Your task to perform on an android device: What's the weather going to be this weekend? Image 0: 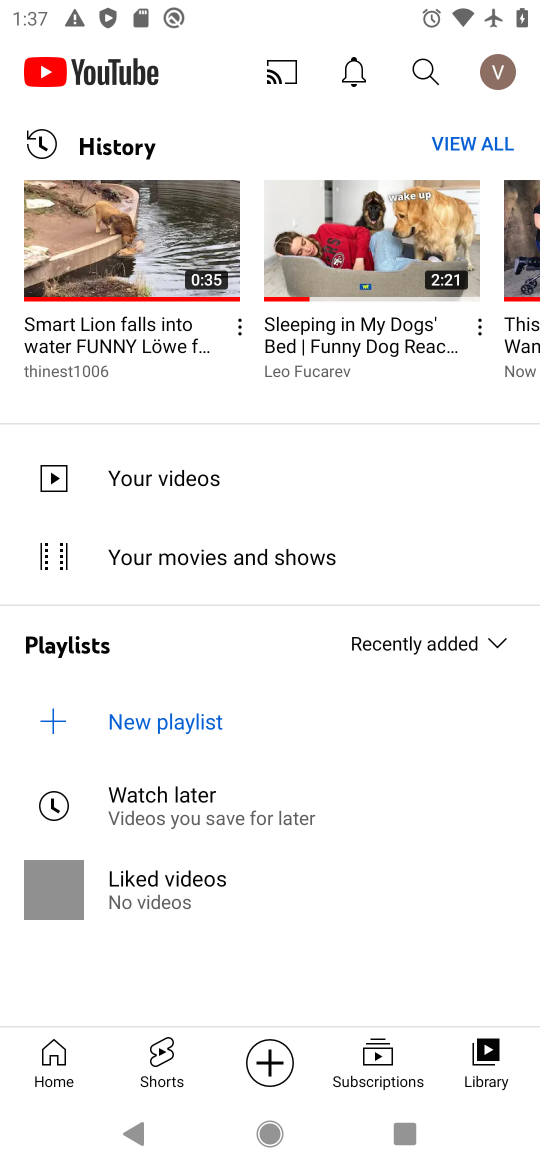
Step 0: press home button
Your task to perform on an android device: What's the weather going to be this weekend? Image 1: 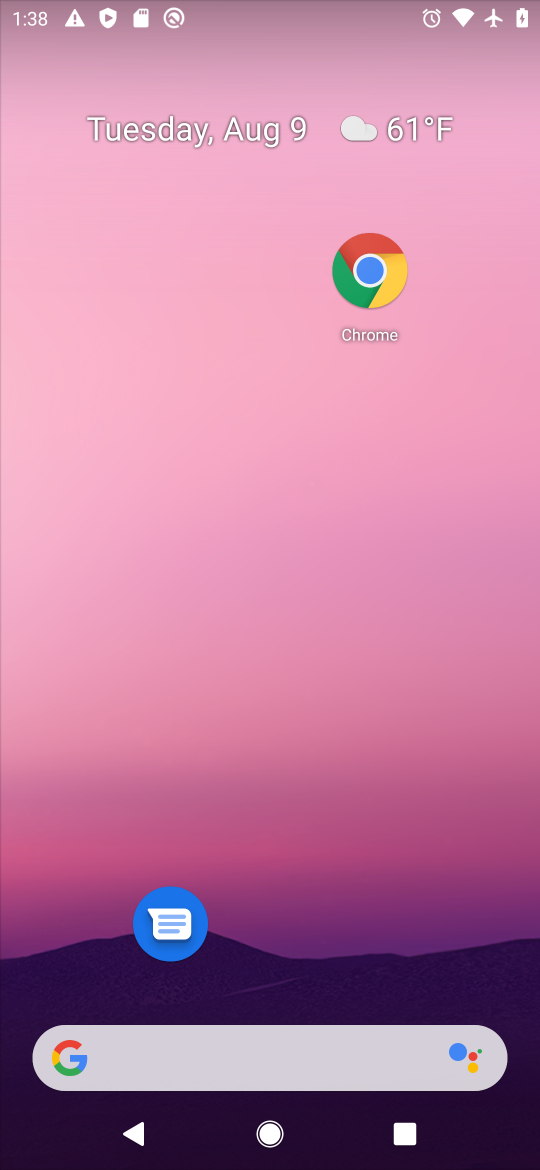
Step 1: task complete